Your task to perform on an android device: Go to Google maps Image 0: 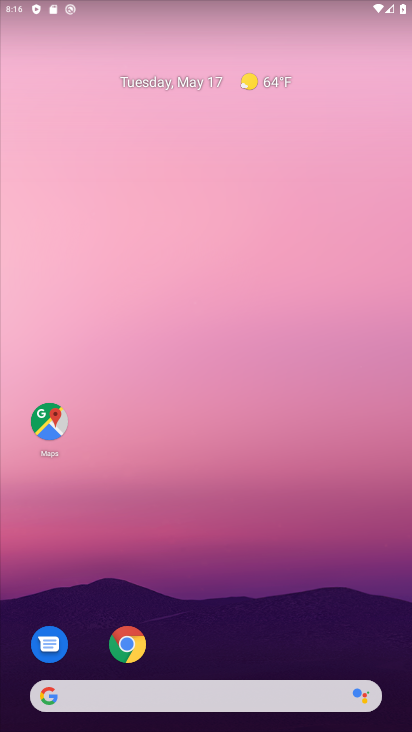
Step 0: click (48, 411)
Your task to perform on an android device: Go to Google maps Image 1: 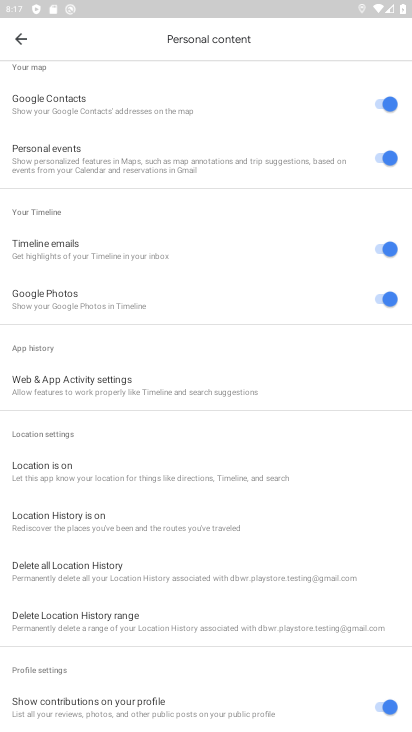
Step 1: click (17, 36)
Your task to perform on an android device: Go to Google maps Image 2: 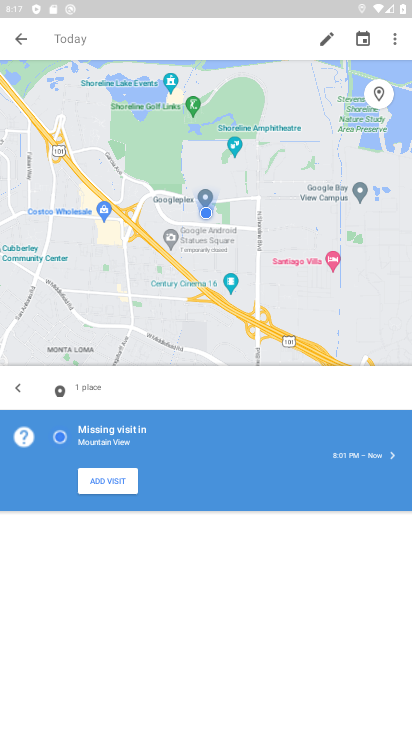
Step 2: click (17, 36)
Your task to perform on an android device: Go to Google maps Image 3: 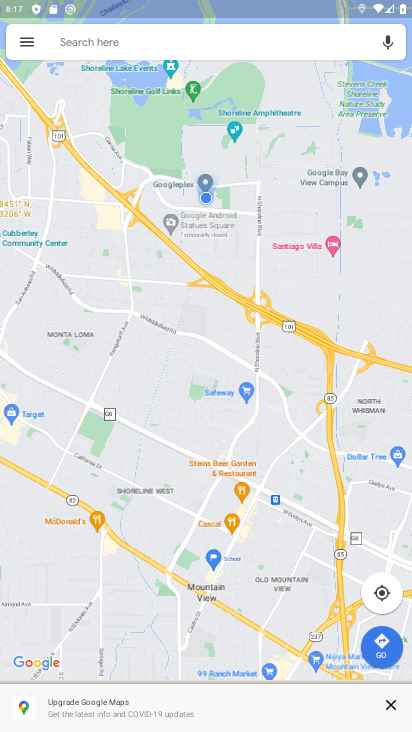
Step 3: task complete